Your task to perform on an android device: delete the emails in spam in the gmail app Image 0: 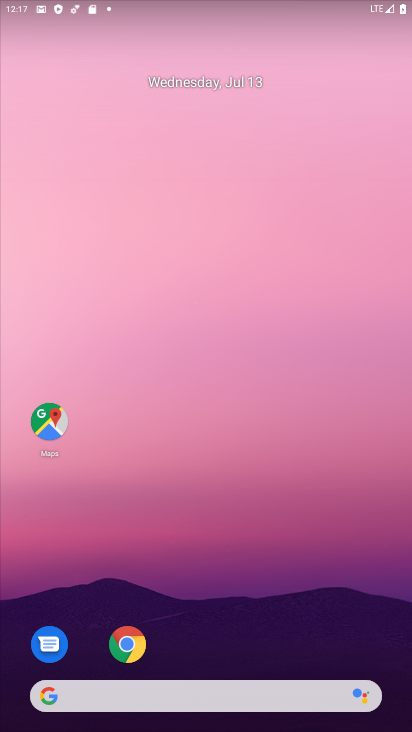
Step 0: press home button
Your task to perform on an android device: delete the emails in spam in the gmail app Image 1: 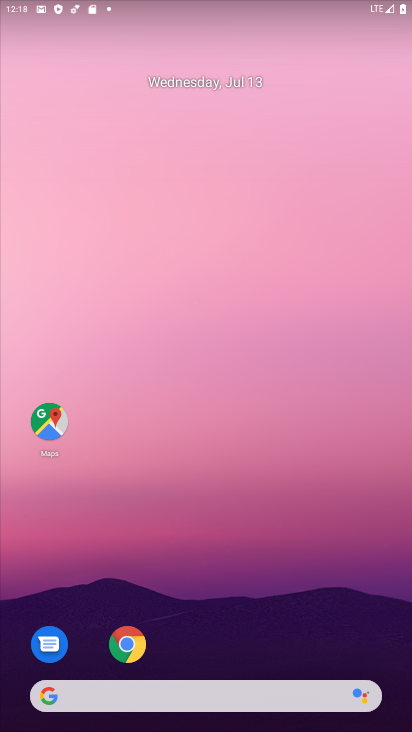
Step 1: drag from (184, 546) to (193, 153)
Your task to perform on an android device: delete the emails in spam in the gmail app Image 2: 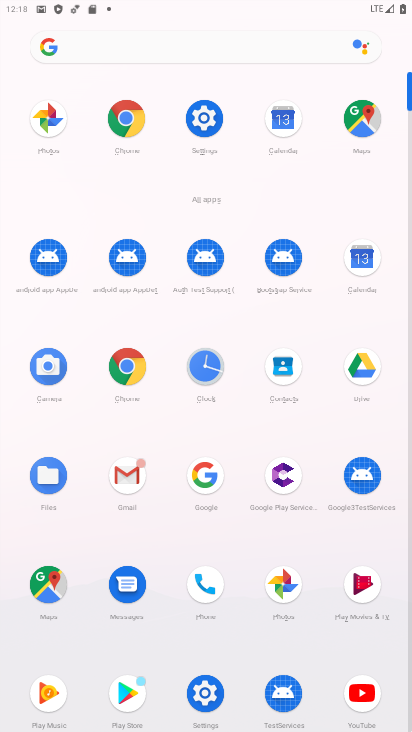
Step 2: click (133, 475)
Your task to perform on an android device: delete the emails in spam in the gmail app Image 3: 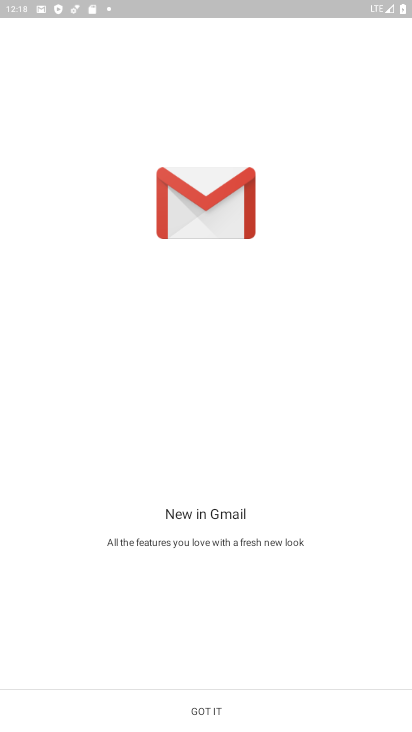
Step 3: click (197, 701)
Your task to perform on an android device: delete the emails in spam in the gmail app Image 4: 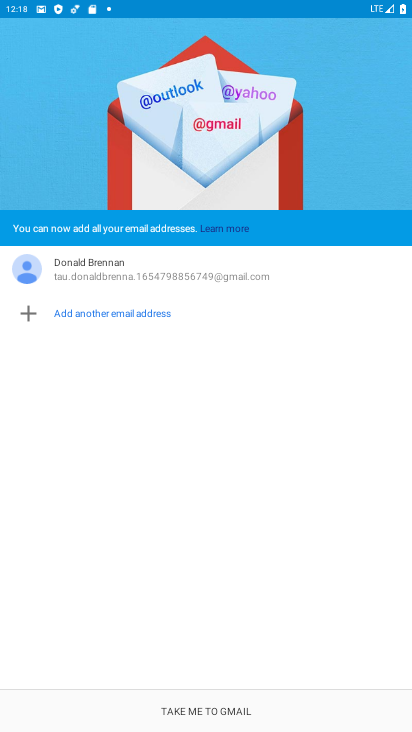
Step 4: click (197, 701)
Your task to perform on an android device: delete the emails in spam in the gmail app Image 5: 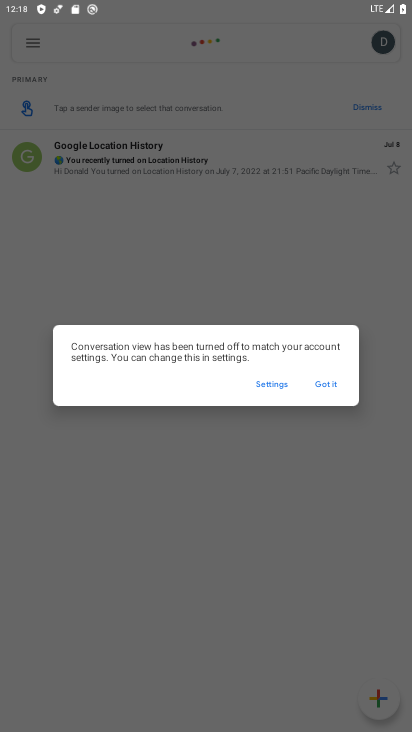
Step 5: click (331, 383)
Your task to perform on an android device: delete the emails in spam in the gmail app Image 6: 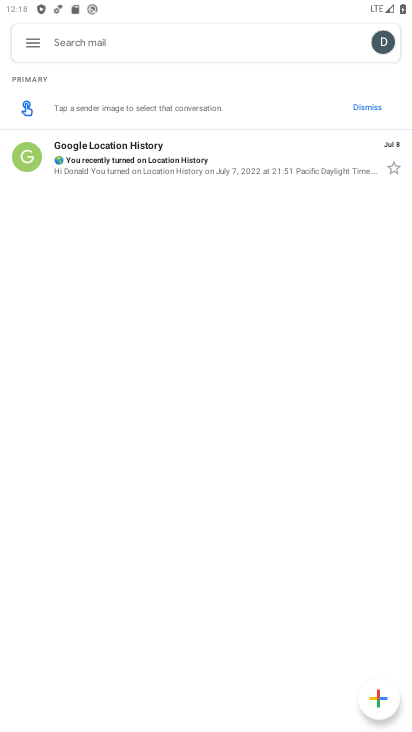
Step 6: click (37, 44)
Your task to perform on an android device: delete the emails in spam in the gmail app Image 7: 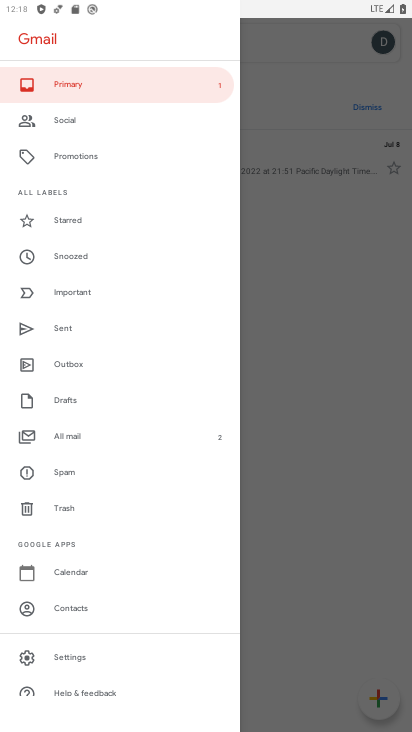
Step 7: click (58, 466)
Your task to perform on an android device: delete the emails in spam in the gmail app Image 8: 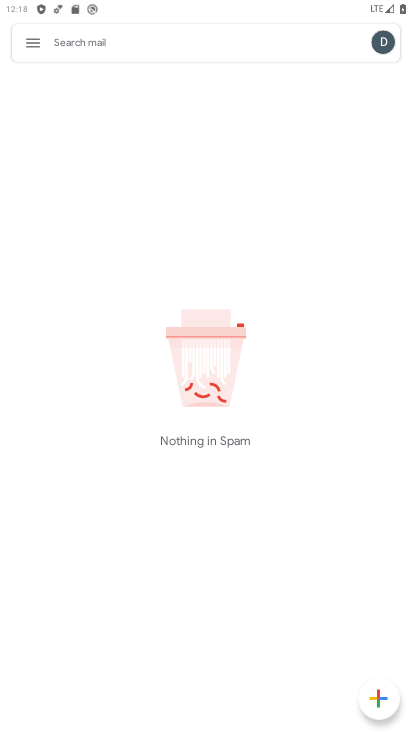
Step 8: task complete